Your task to perform on an android device: Go to Yahoo.com Image 0: 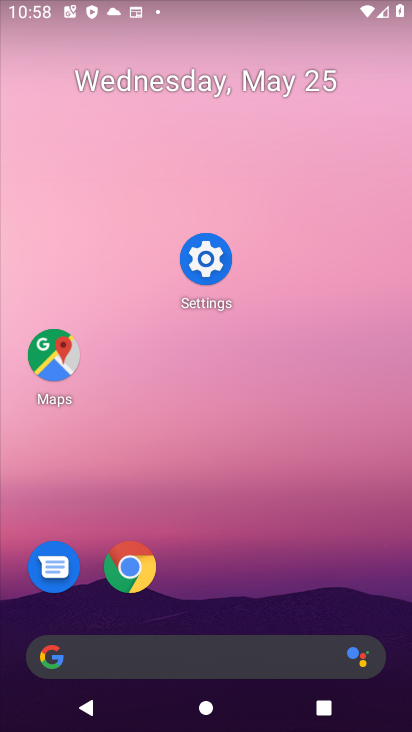
Step 0: click (134, 575)
Your task to perform on an android device: Go to Yahoo.com Image 1: 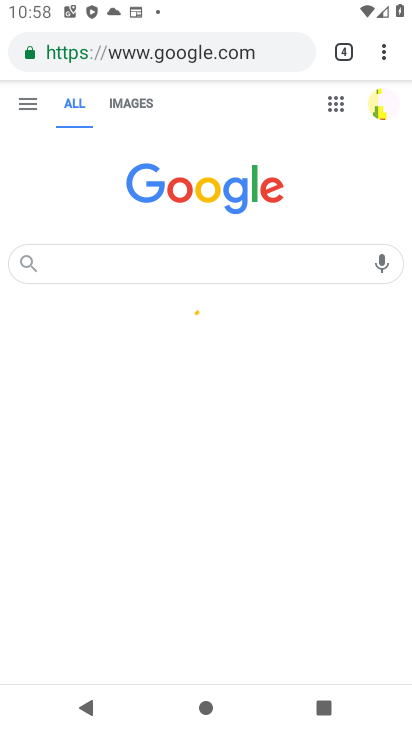
Step 1: click (196, 253)
Your task to perform on an android device: Go to Yahoo.com Image 2: 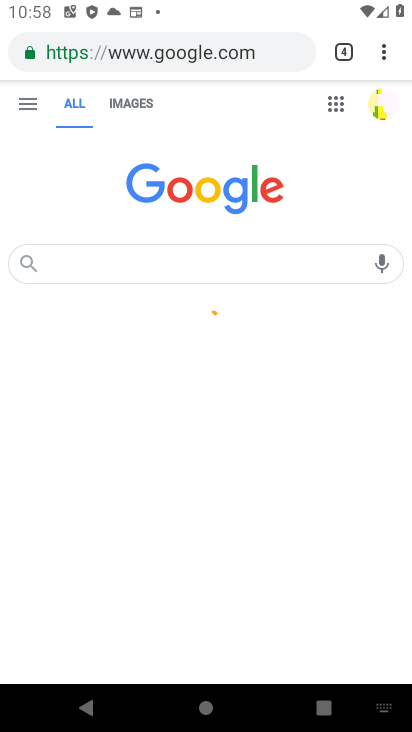
Step 2: type "yqahoo.com"
Your task to perform on an android device: Go to Yahoo.com Image 3: 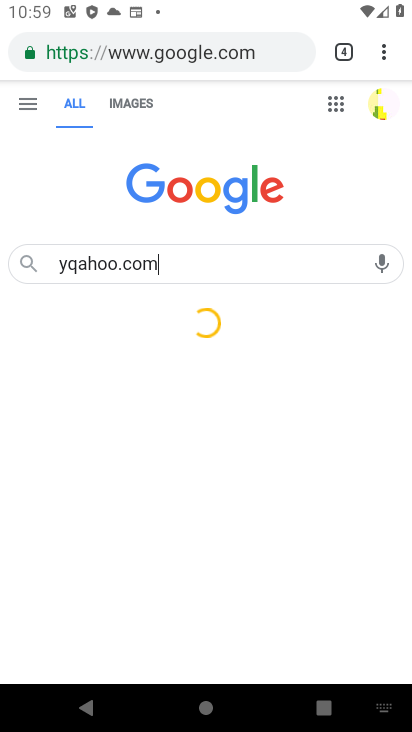
Step 3: task complete